Your task to perform on an android device: turn on data saver in the chrome app Image 0: 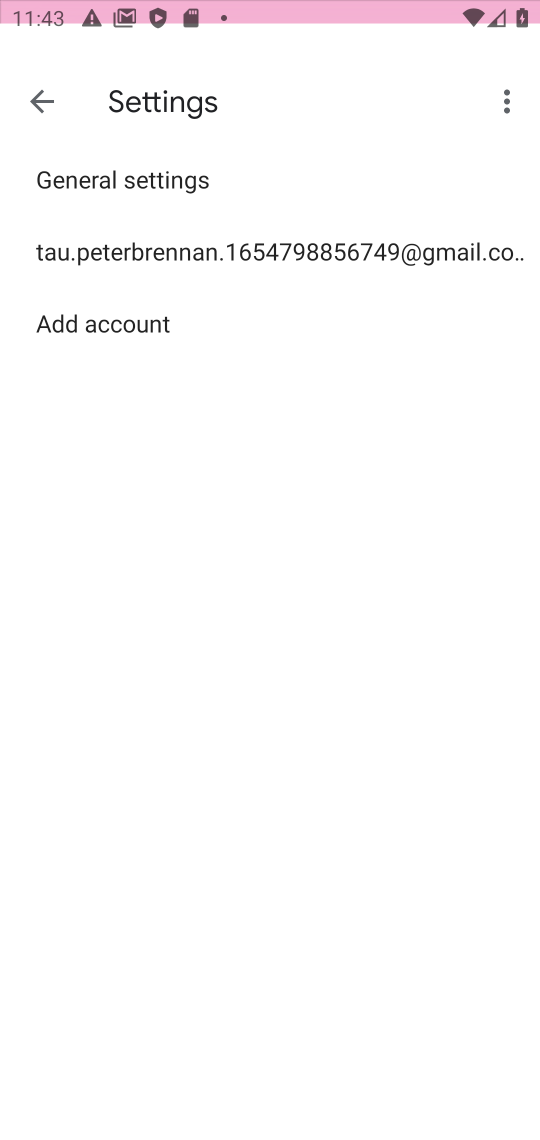
Step 0: press home button
Your task to perform on an android device: turn on data saver in the chrome app Image 1: 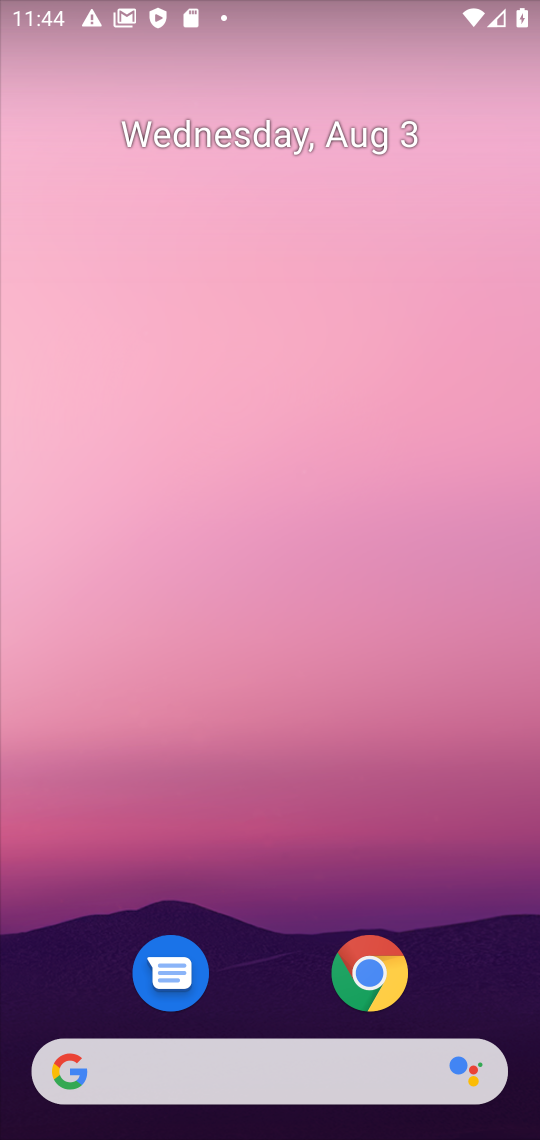
Step 1: click (379, 981)
Your task to perform on an android device: turn on data saver in the chrome app Image 2: 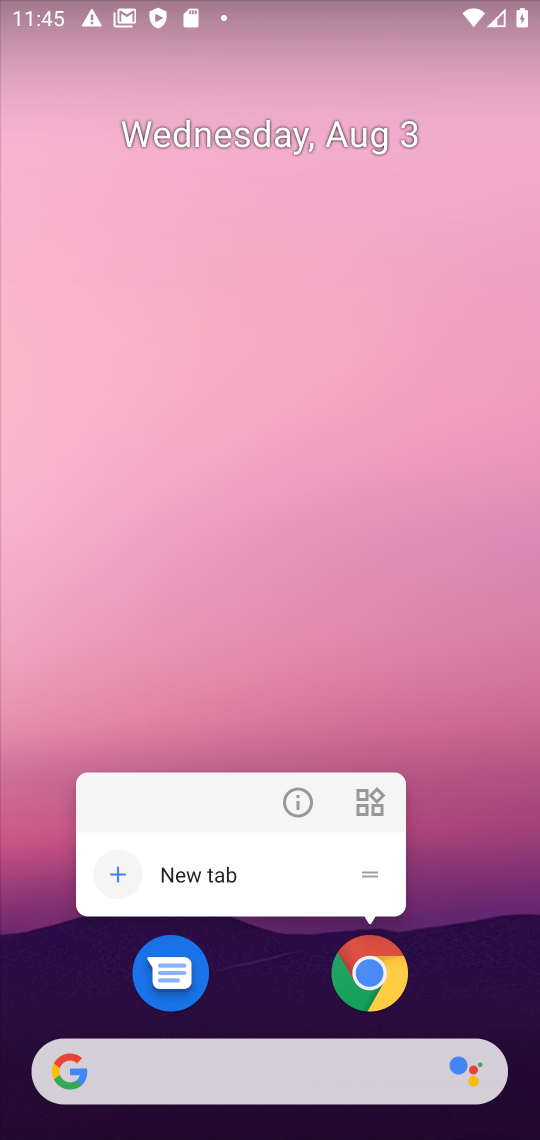
Step 2: click (379, 981)
Your task to perform on an android device: turn on data saver in the chrome app Image 3: 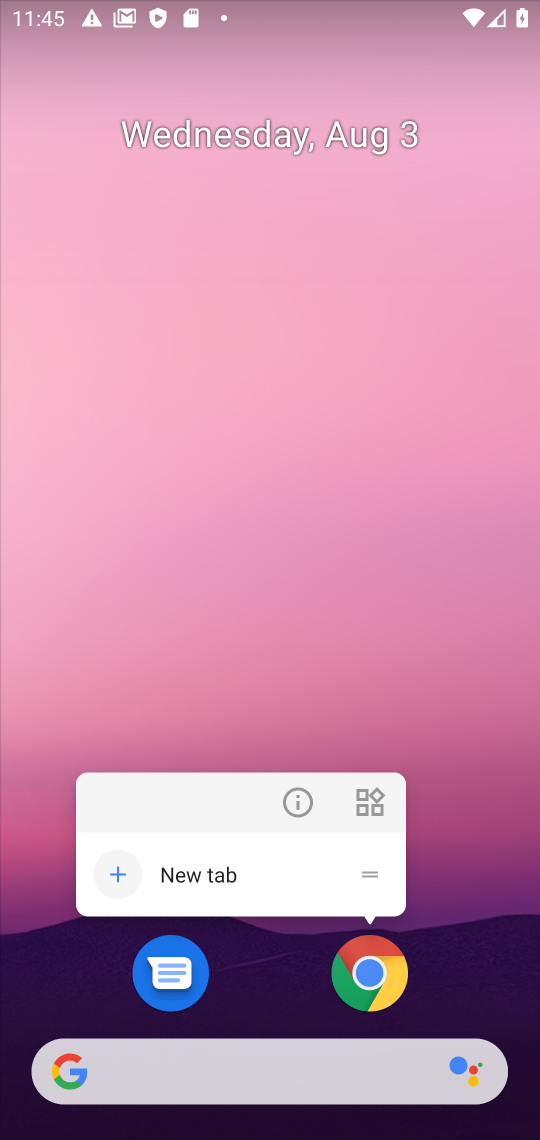
Step 3: click (364, 971)
Your task to perform on an android device: turn on data saver in the chrome app Image 4: 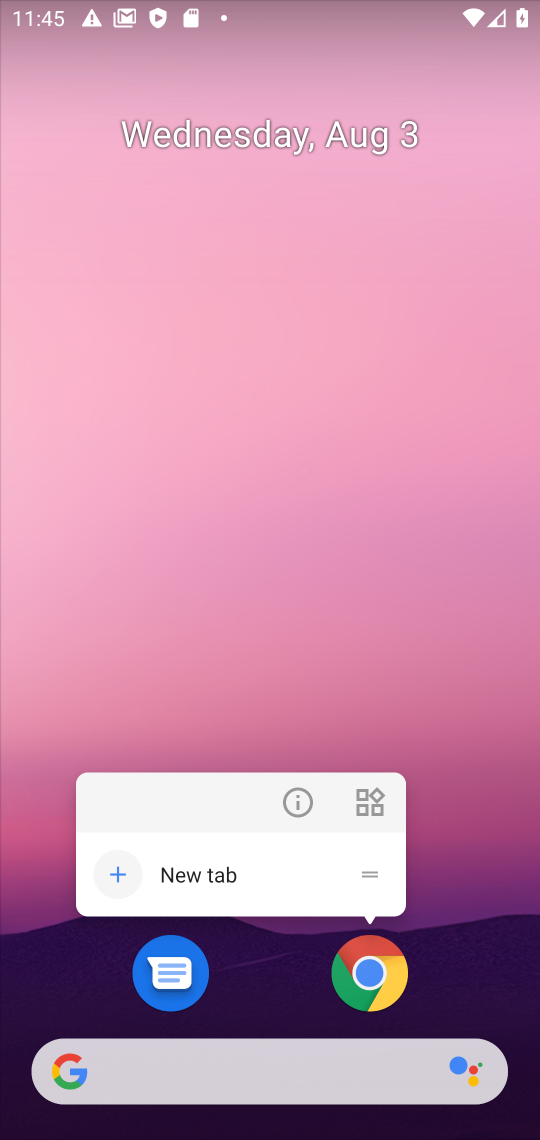
Step 4: click (359, 961)
Your task to perform on an android device: turn on data saver in the chrome app Image 5: 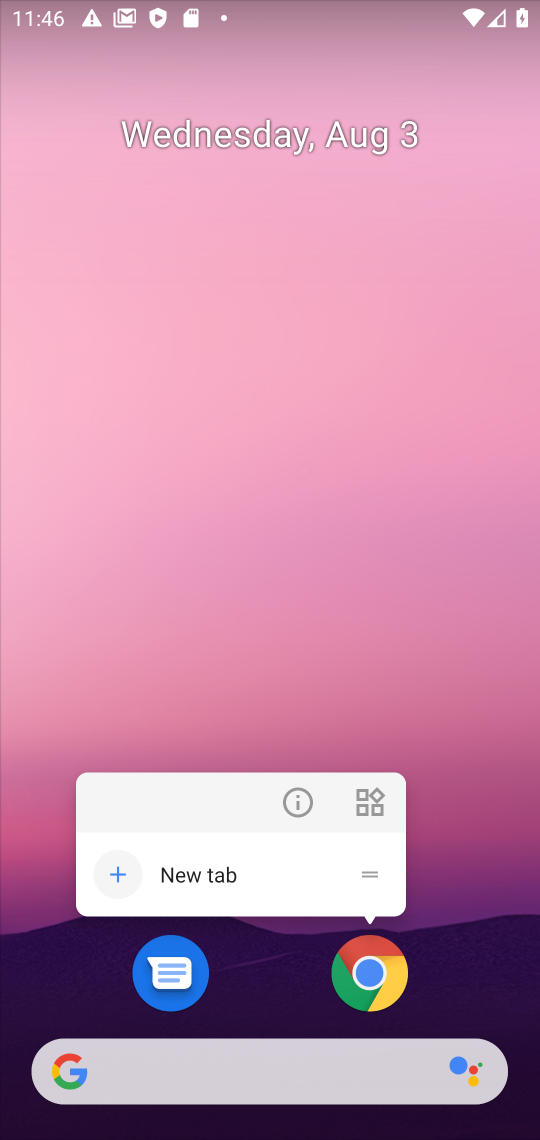
Step 5: click (363, 961)
Your task to perform on an android device: turn on data saver in the chrome app Image 6: 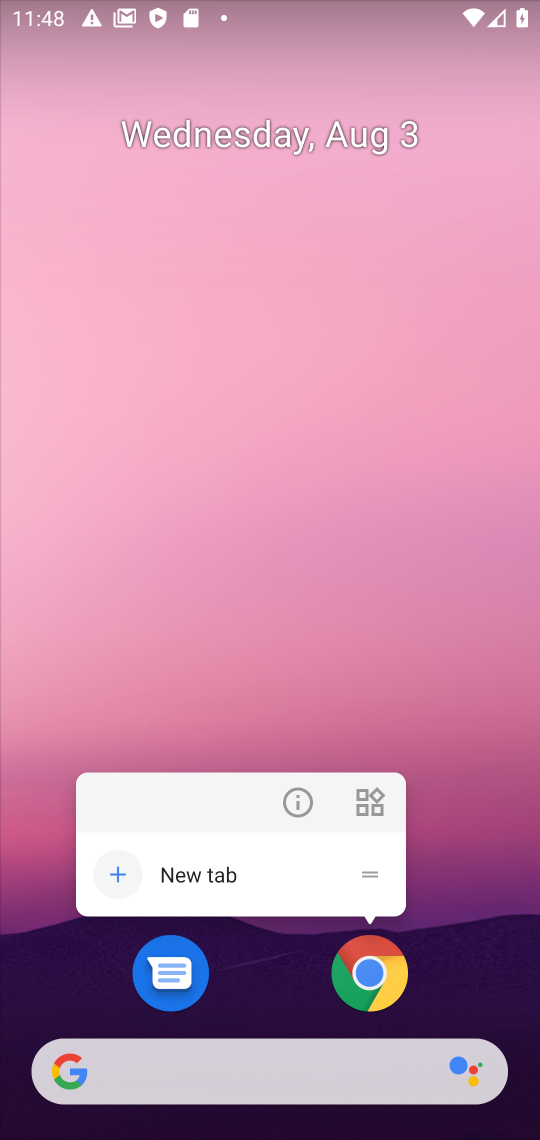
Step 6: click (354, 961)
Your task to perform on an android device: turn on data saver in the chrome app Image 7: 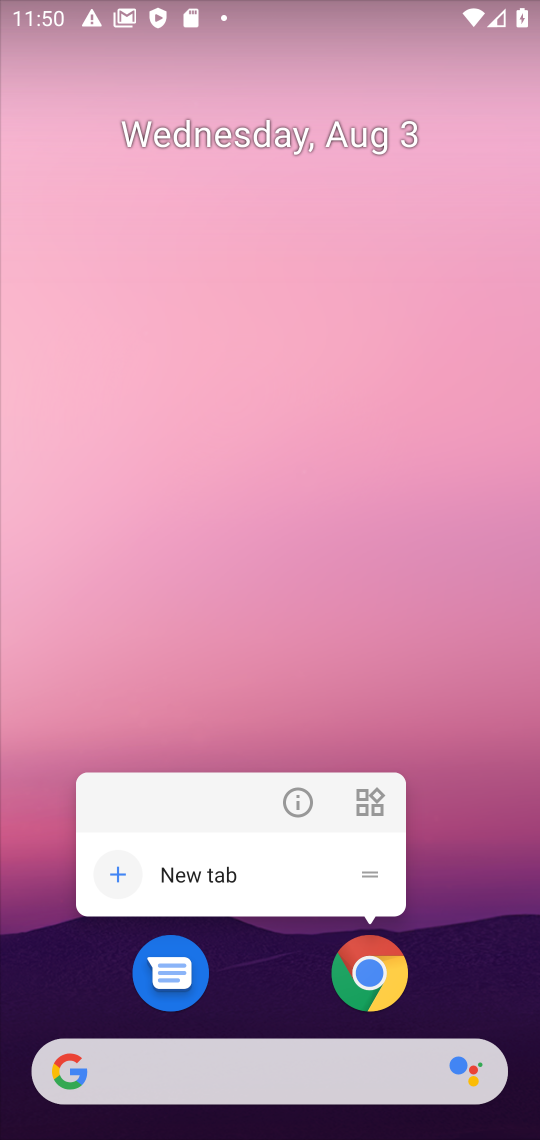
Step 7: click (385, 975)
Your task to perform on an android device: turn on data saver in the chrome app Image 8: 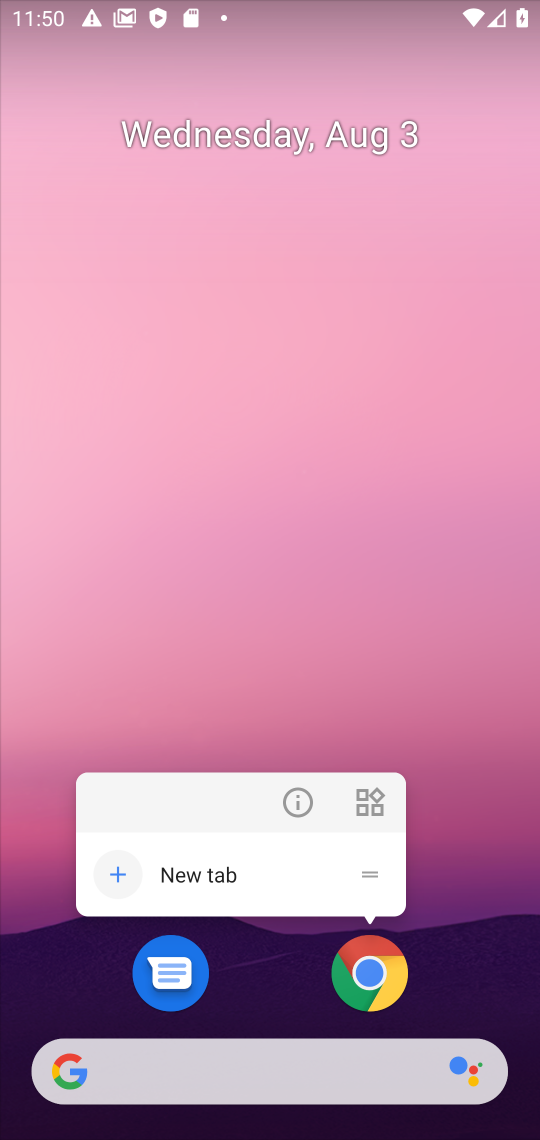
Step 8: click (359, 985)
Your task to perform on an android device: turn on data saver in the chrome app Image 9: 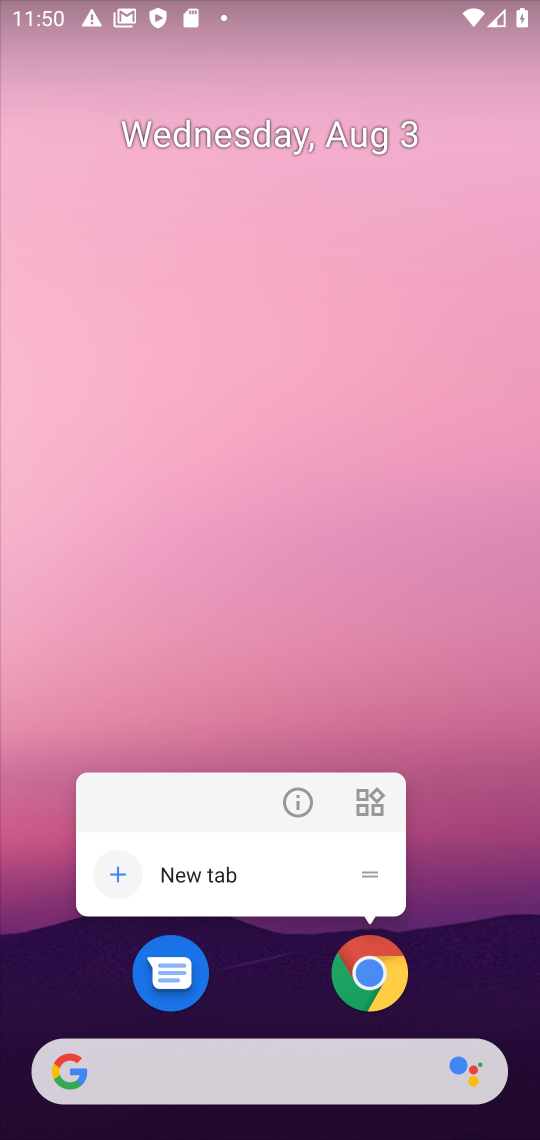
Step 9: click (359, 985)
Your task to perform on an android device: turn on data saver in the chrome app Image 10: 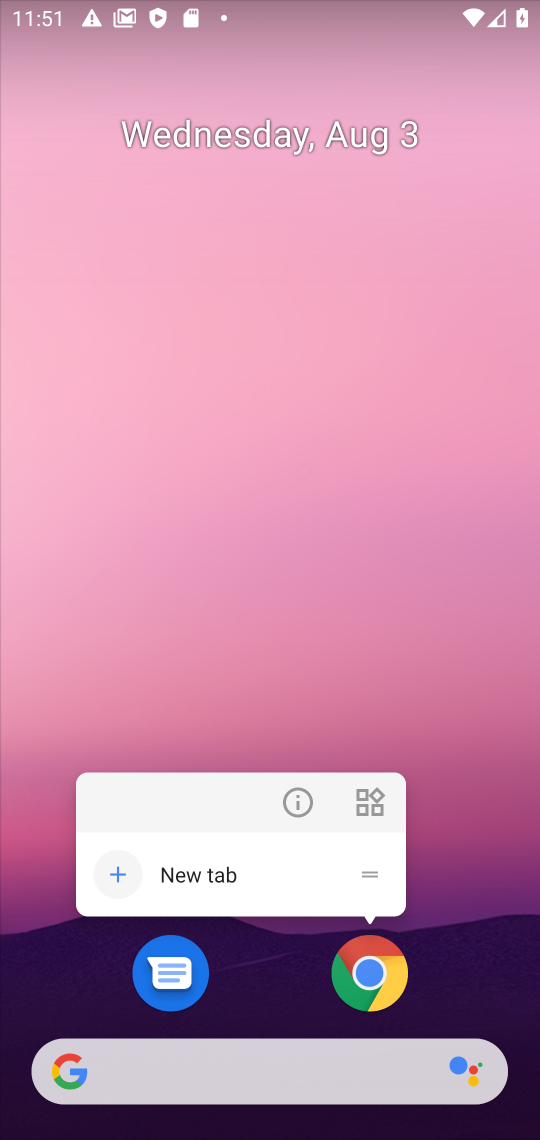
Step 10: click (359, 985)
Your task to perform on an android device: turn on data saver in the chrome app Image 11: 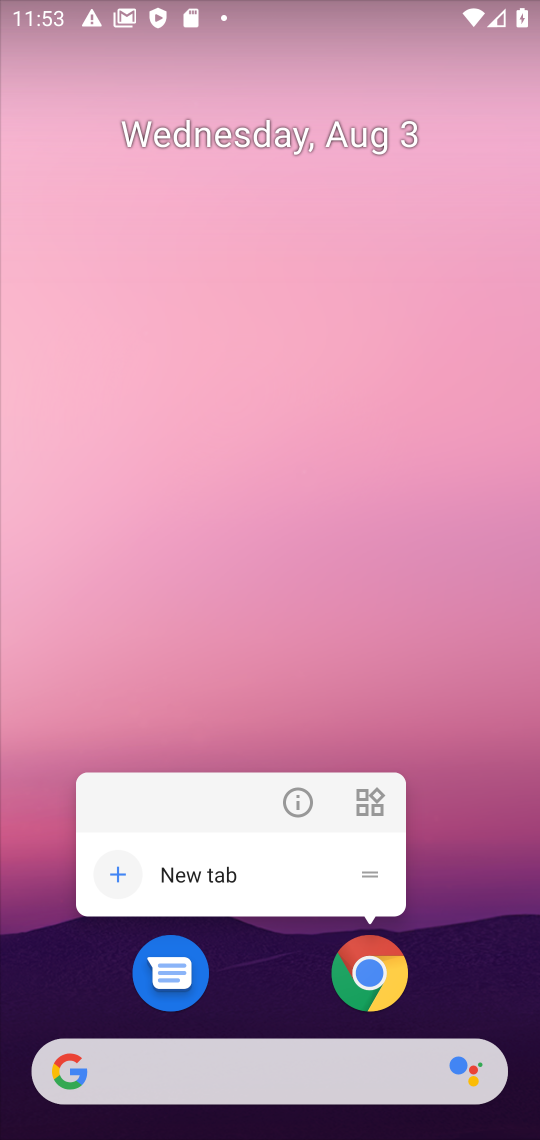
Step 11: click (375, 975)
Your task to perform on an android device: turn on data saver in the chrome app Image 12: 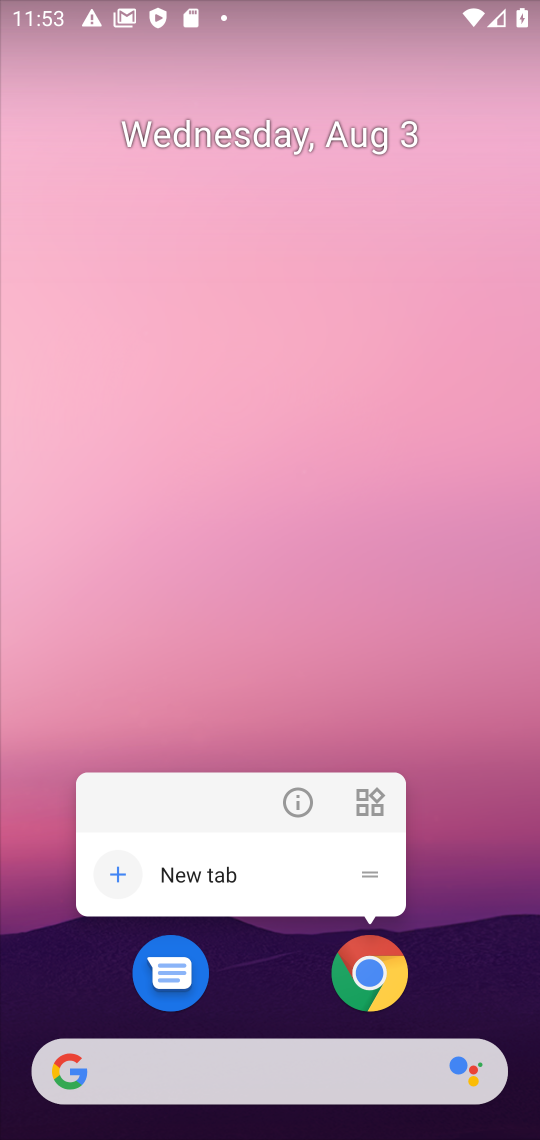
Step 12: click (372, 996)
Your task to perform on an android device: turn on data saver in the chrome app Image 13: 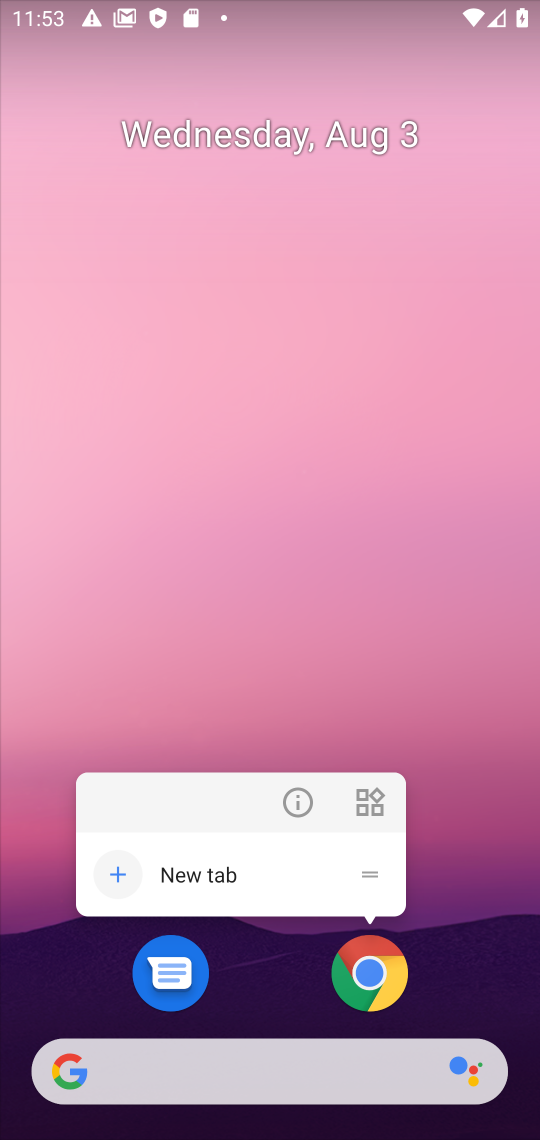
Step 13: click (372, 996)
Your task to perform on an android device: turn on data saver in the chrome app Image 14: 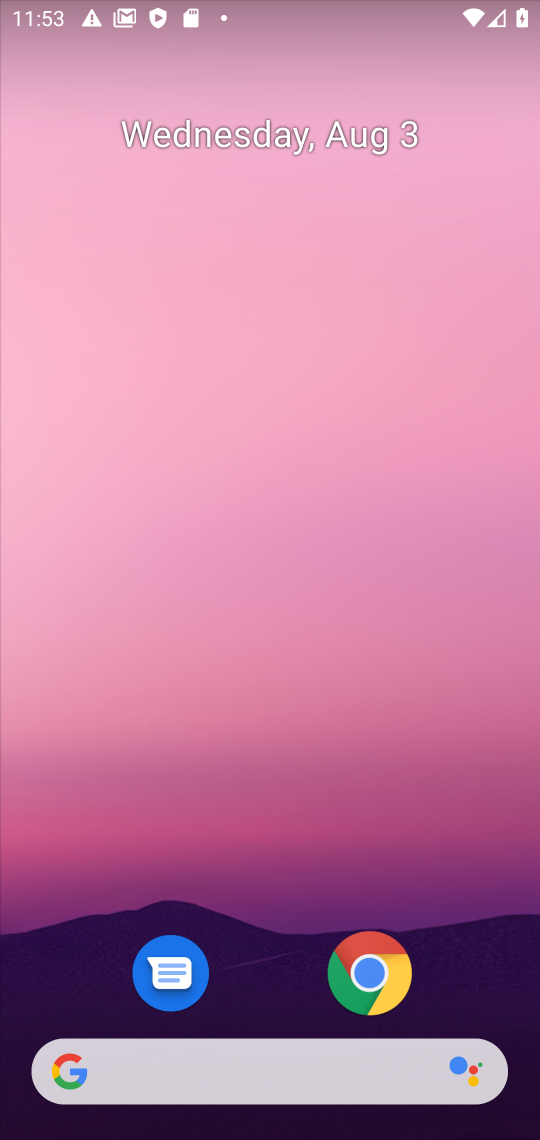
Step 14: click (375, 974)
Your task to perform on an android device: turn on data saver in the chrome app Image 15: 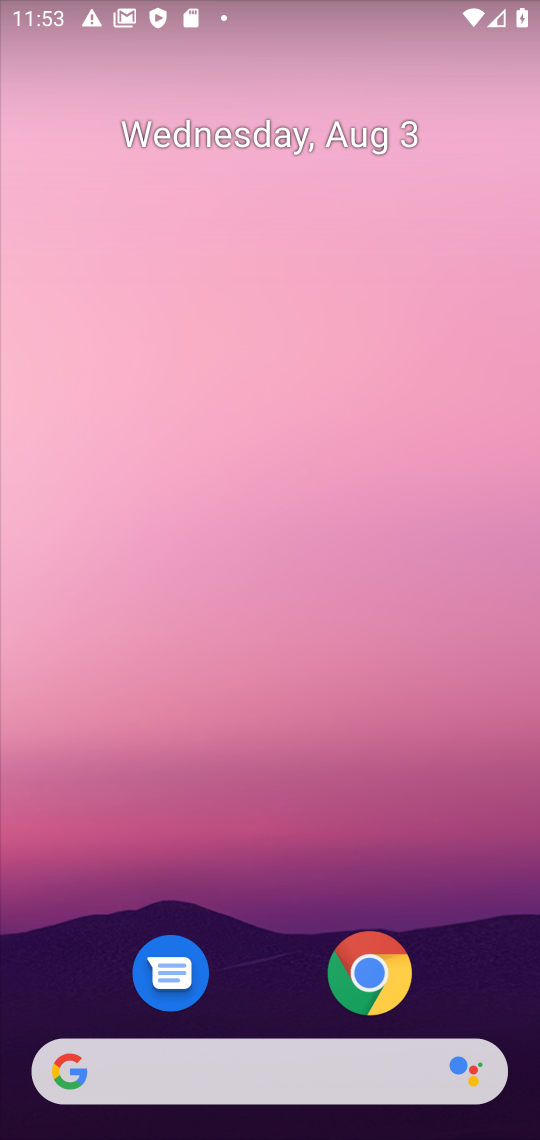
Step 15: click (370, 977)
Your task to perform on an android device: turn on data saver in the chrome app Image 16: 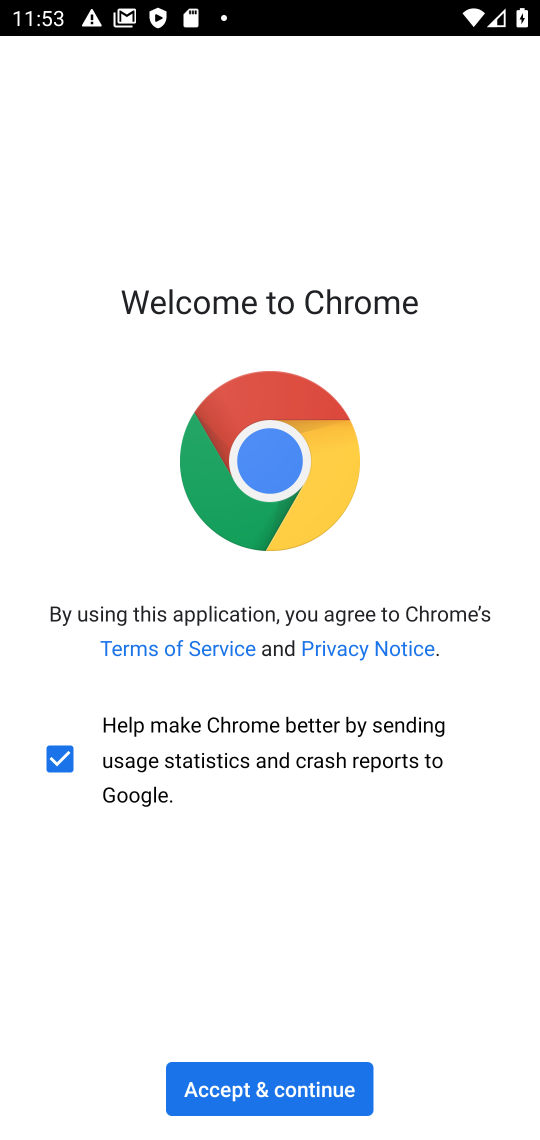
Step 16: click (300, 1096)
Your task to perform on an android device: turn on data saver in the chrome app Image 17: 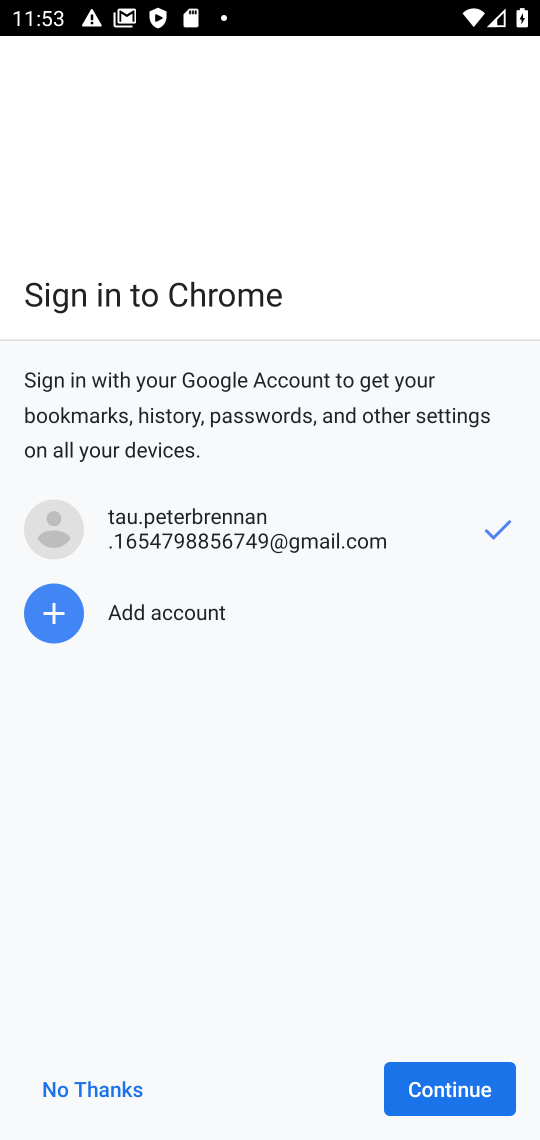
Step 17: click (485, 1086)
Your task to perform on an android device: turn on data saver in the chrome app Image 18: 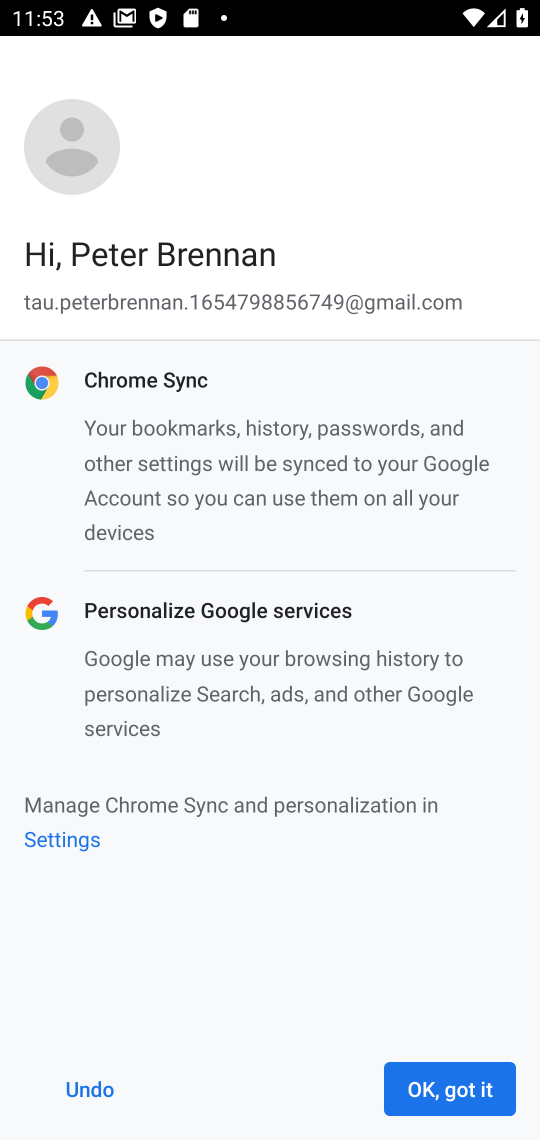
Step 18: click (449, 1092)
Your task to perform on an android device: turn on data saver in the chrome app Image 19: 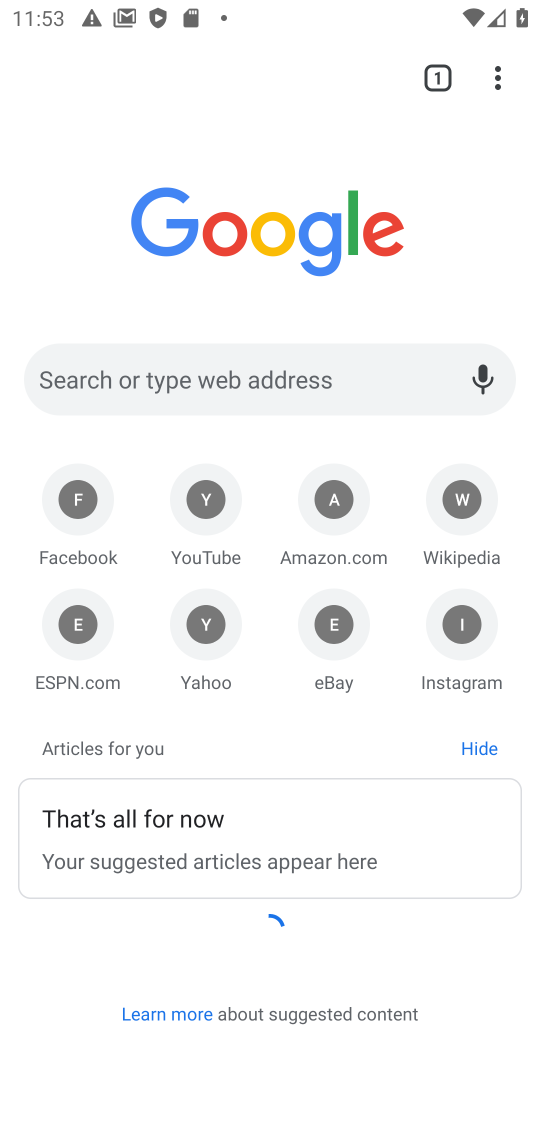
Step 19: click (496, 57)
Your task to perform on an android device: turn on data saver in the chrome app Image 20: 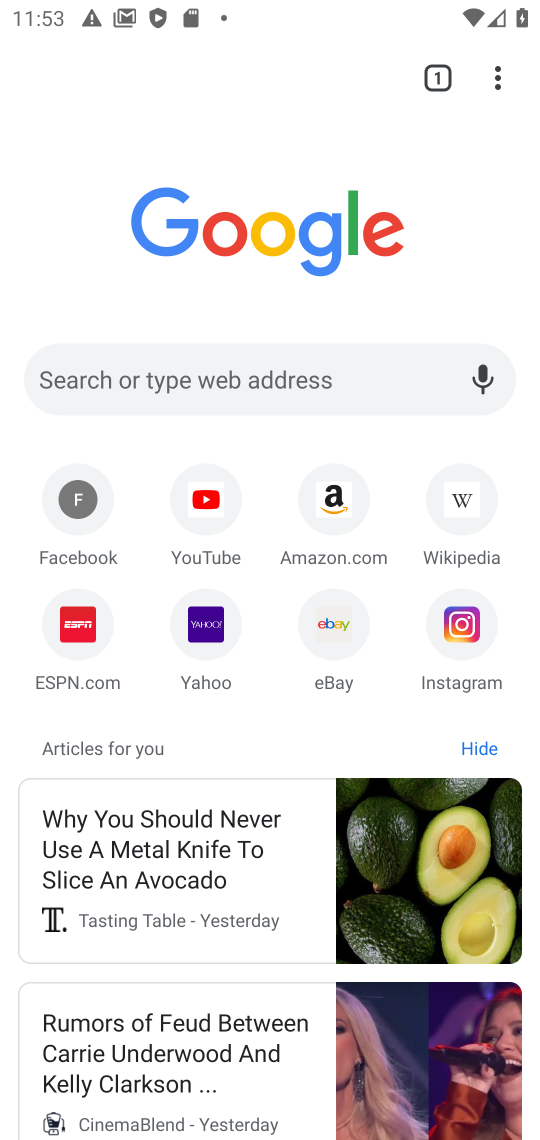
Step 20: click (496, 92)
Your task to perform on an android device: turn on data saver in the chrome app Image 21: 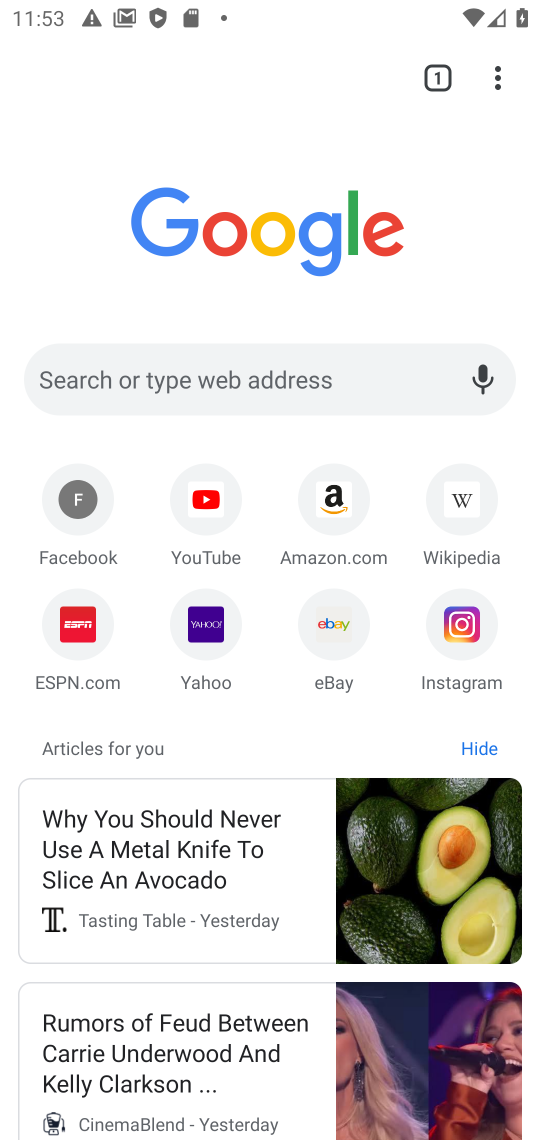
Step 21: click (485, 81)
Your task to perform on an android device: turn on data saver in the chrome app Image 22: 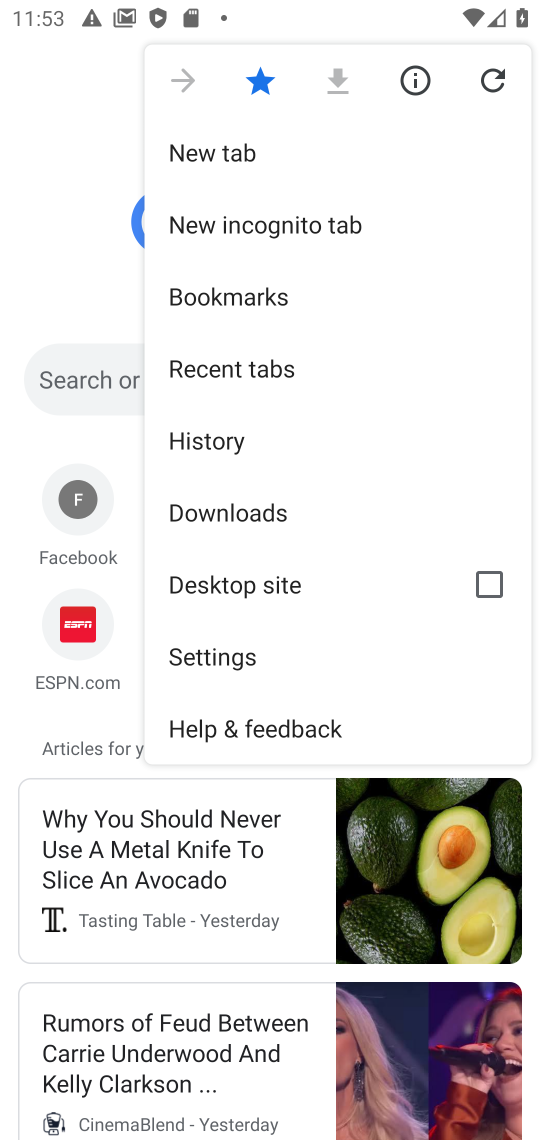
Step 22: click (269, 654)
Your task to perform on an android device: turn on data saver in the chrome app Image 23: 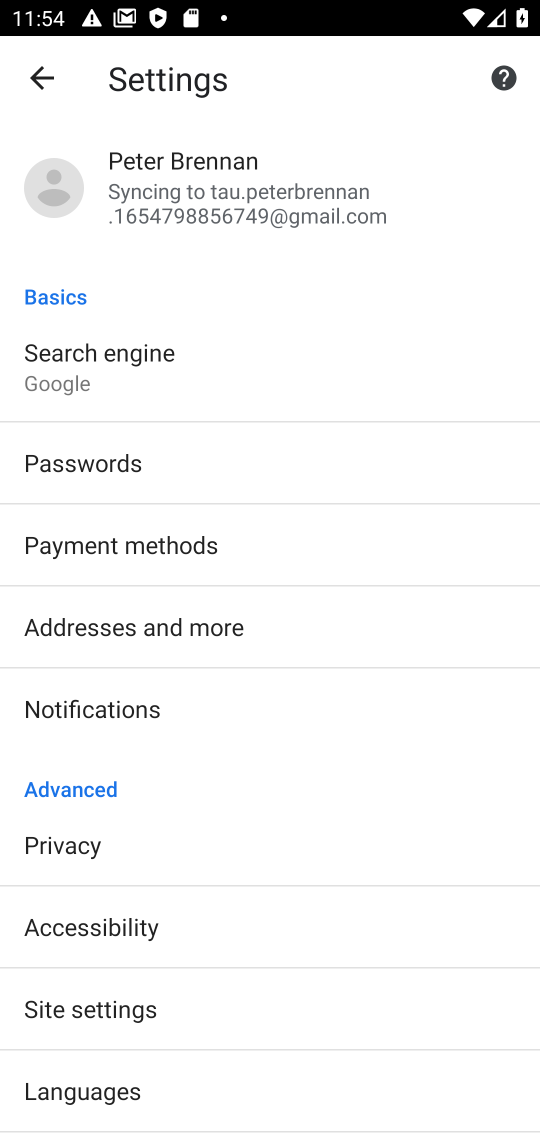
Step 23: drag from (347, 1011) to (337, 6)
Your task to perform on an android device: turn on data saver in the chrome app Image 24: 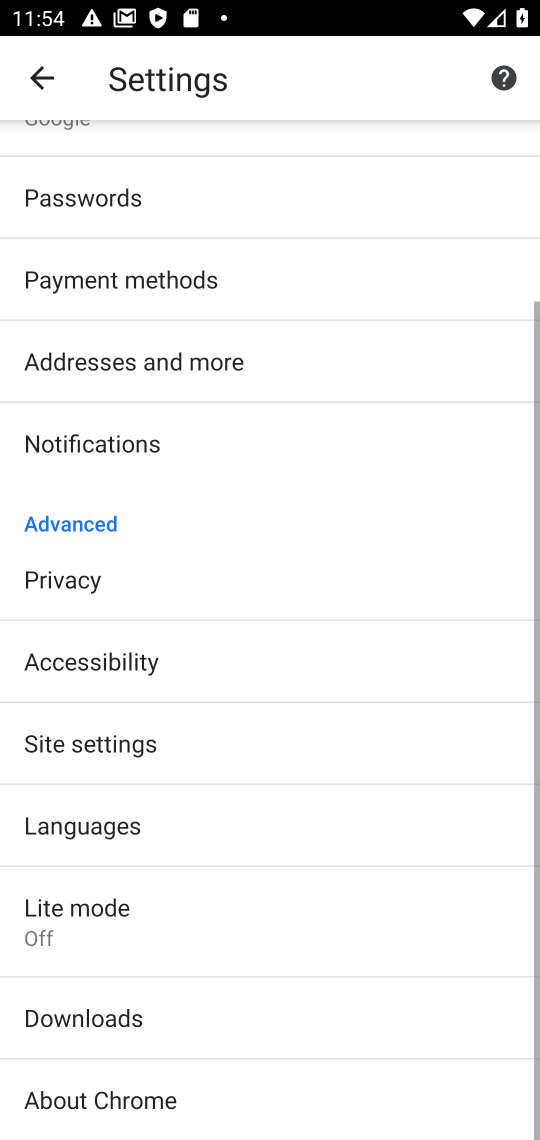
Step 24: click (272, 898)
Your task to perform on an android device: turn on data saver in the chrome app Image 25: 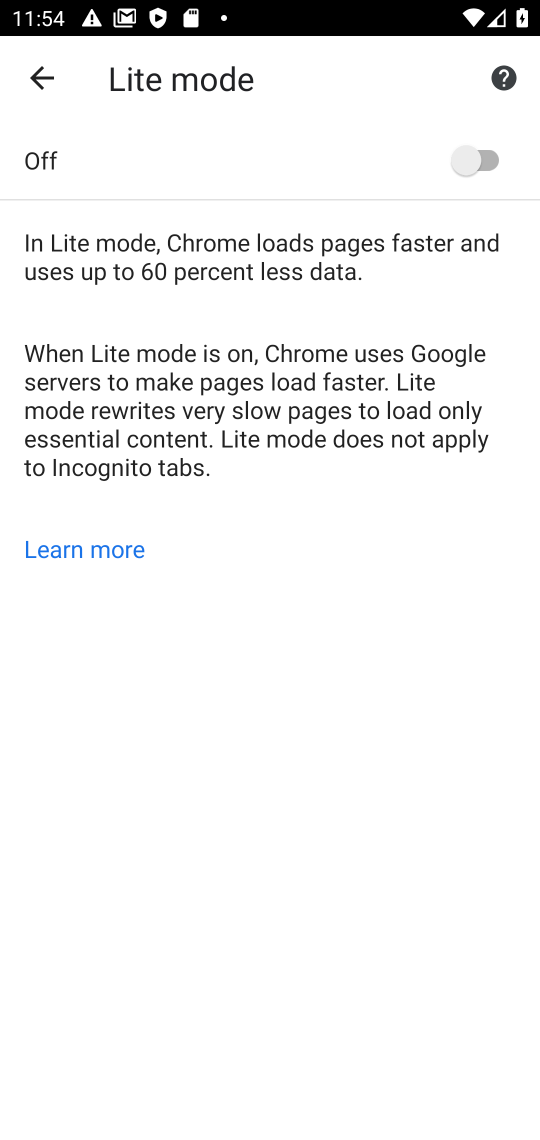
Step 25: click (470, 166)
Your task to perform on an android device: turn on data saver in the chrome app Image 26: 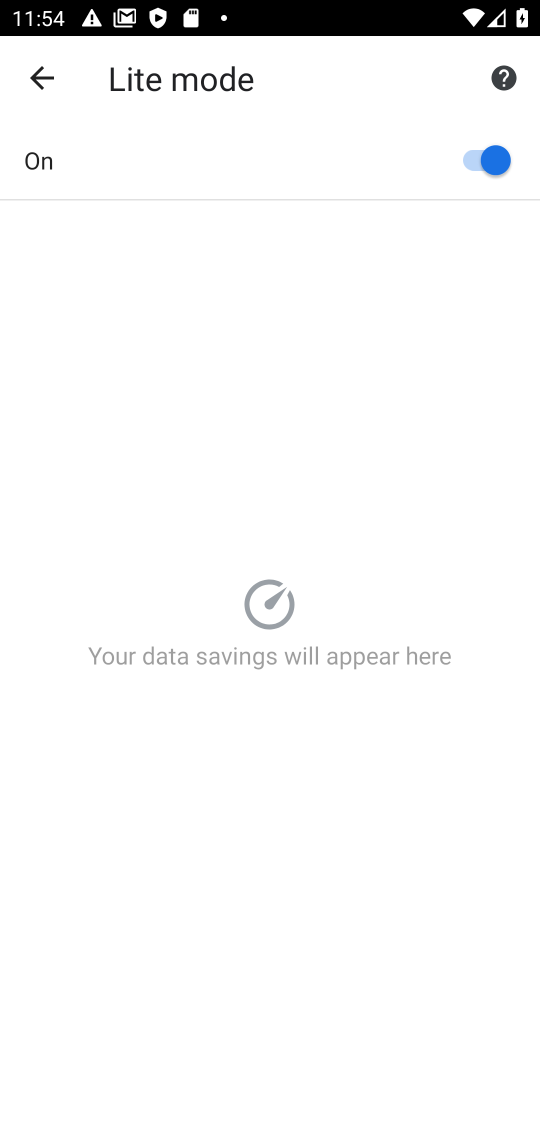
Step 26: task complete